Your task to perform on an android device: Search for "acer nitro" on target, select the first entry, and add it to the cart. Image 0: 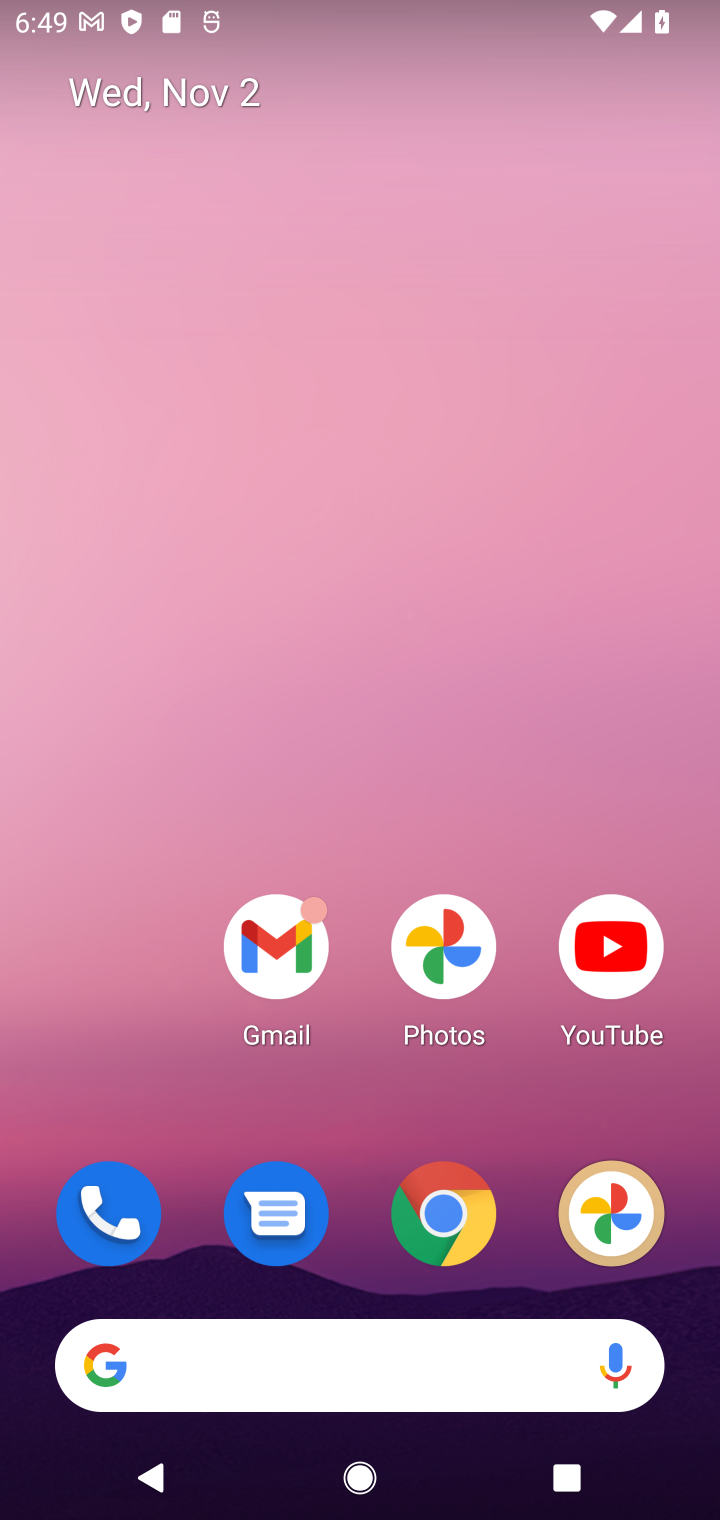
Step 0: click (441, 1220)
Your task to perform on an android device: Search for "acer nitro" on target, select the first entry, and add it to the cart. Image 1: 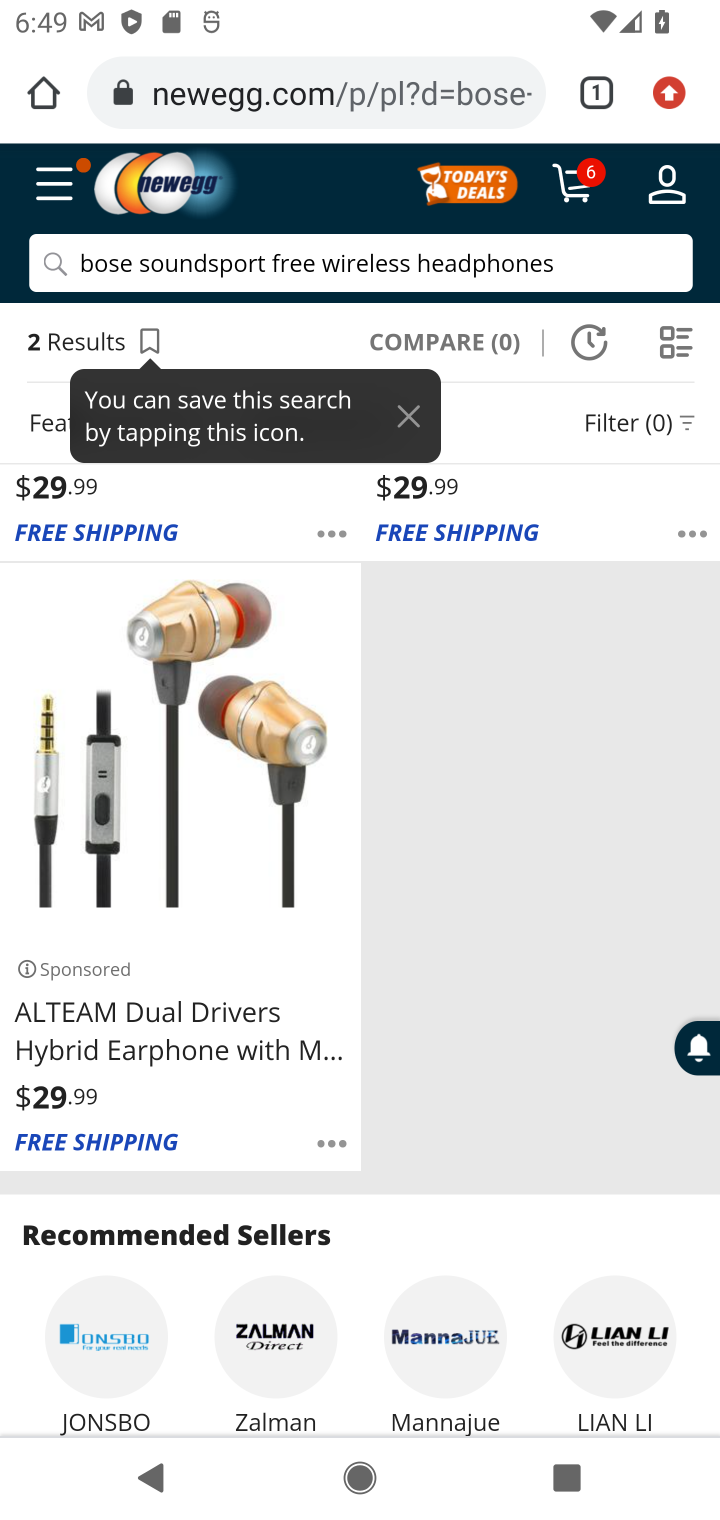
Step 1: click (390, 62)
Your task to perform on an android device: Search for "acer nitro" on target, select the first entry, and add it to the cart. Image 2: 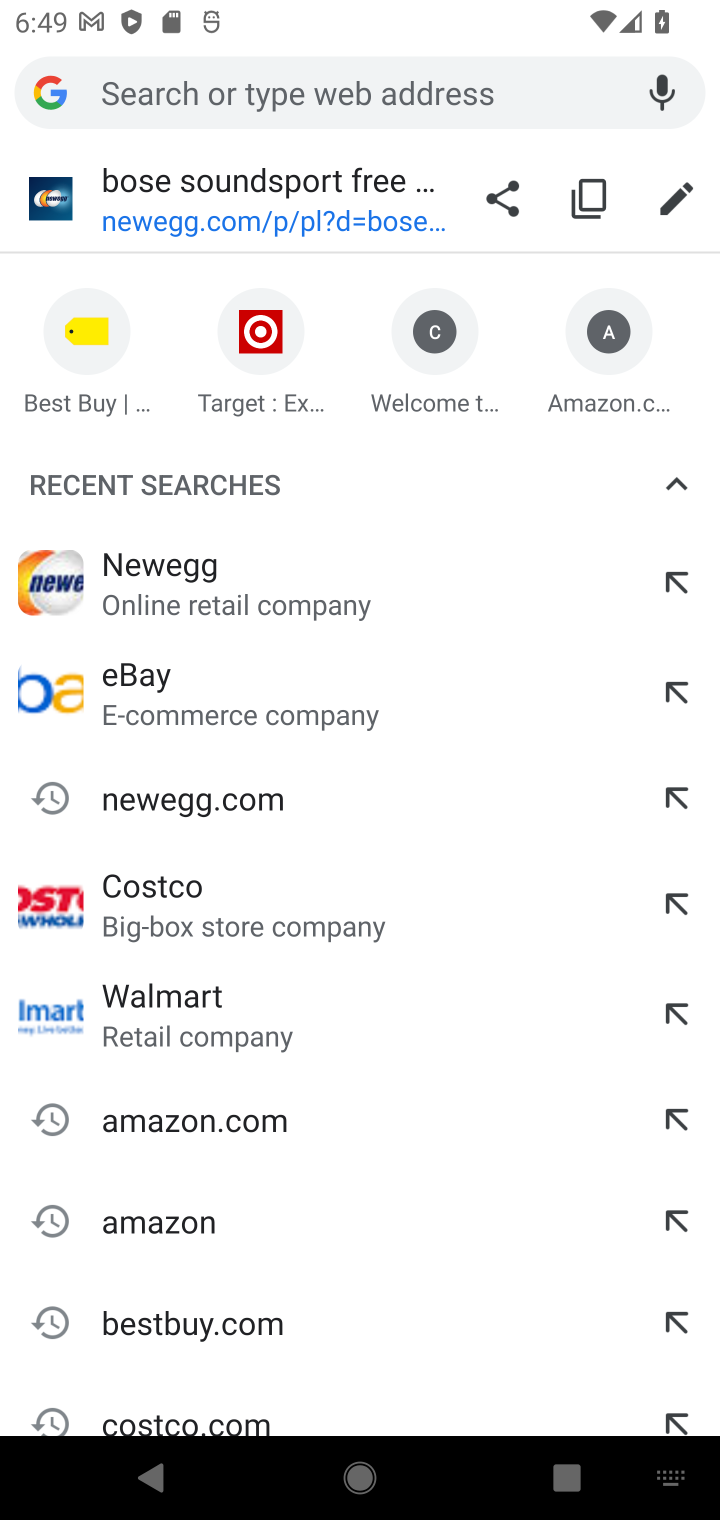
Step 2: type "target.com"
Your task to perform on an android device: Search for "acer nitro" on target, select the first entry, and add it to the cart. Image 3: 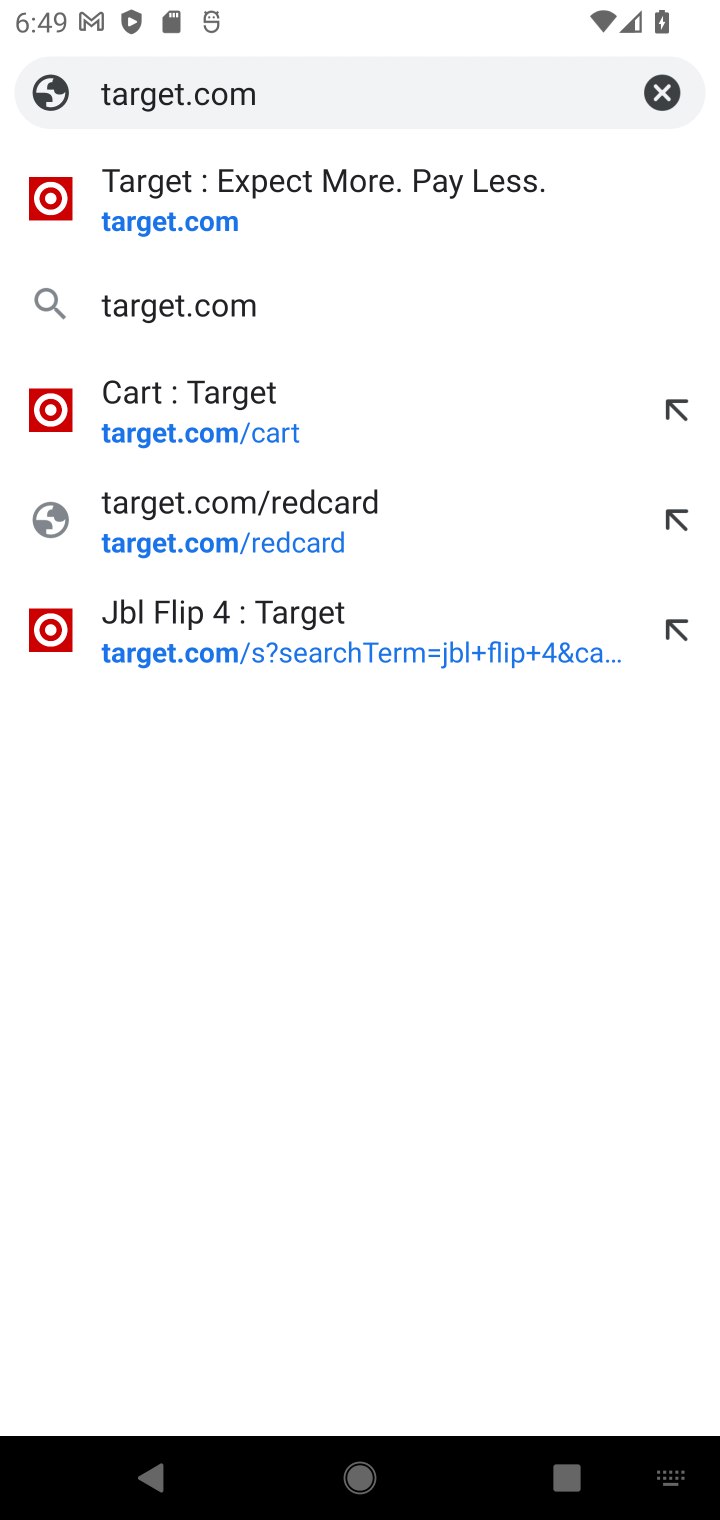
Step 3: click (144, 188)
Your task to perform on an android device: Search for "acer nitro" on target, select the first entry, and add it to the cart. Image 4: 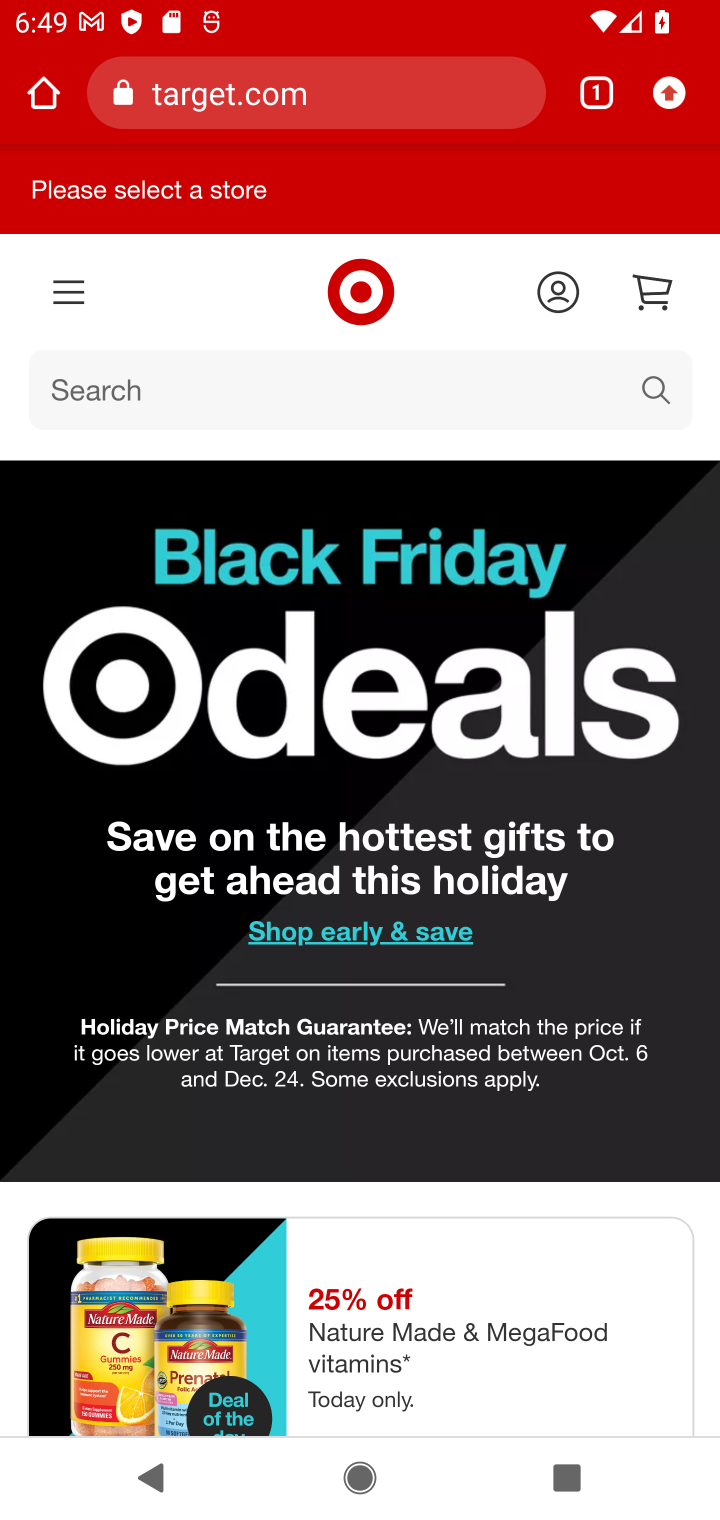
Step 4: click (292, 374)
Your task to perform on an android device: Search for "acer nitro" on target, select the first entry, and add it to the cart. Image 5: 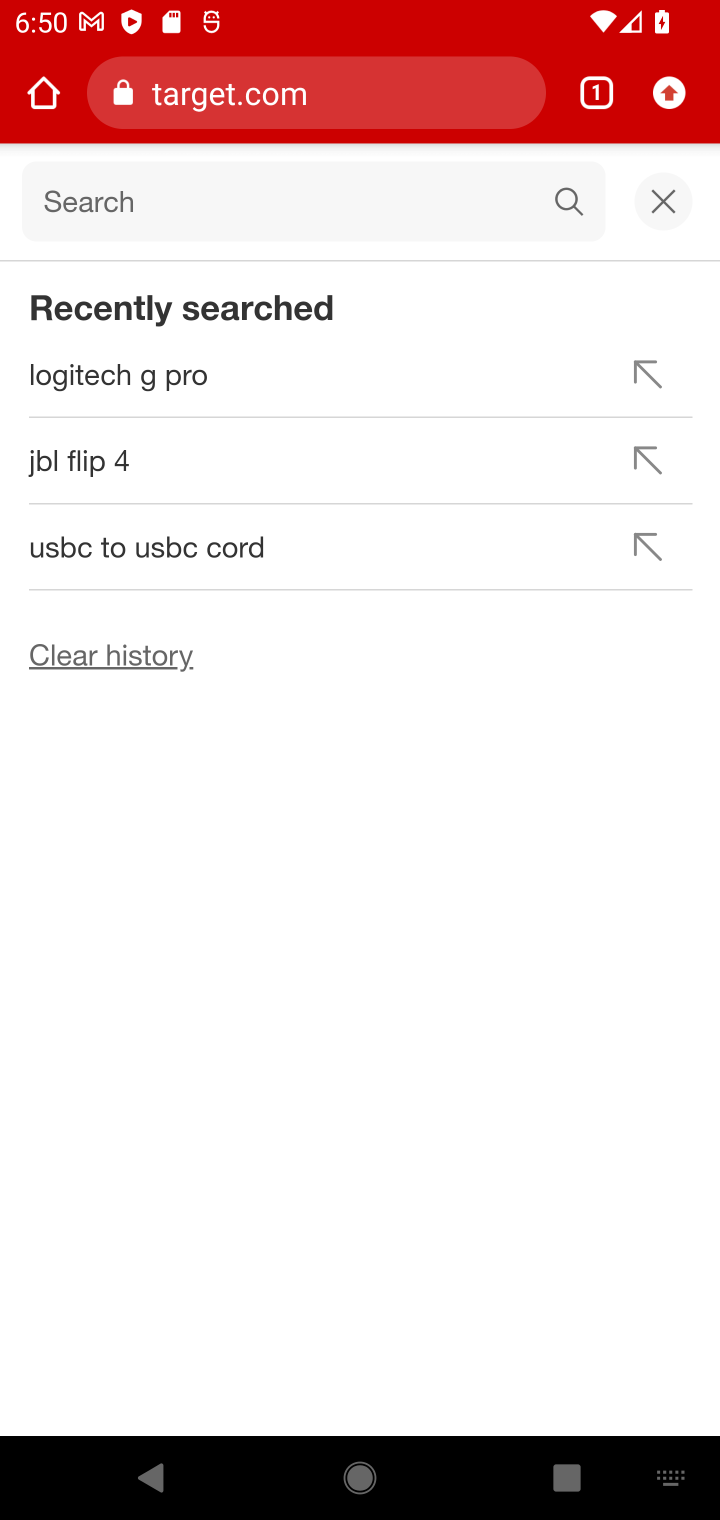
Step 5: type "acer nitro"
Your task to perform on an android device: Search for "acer nitro" on target, select the first entry, and add it to the cart. Image 6: 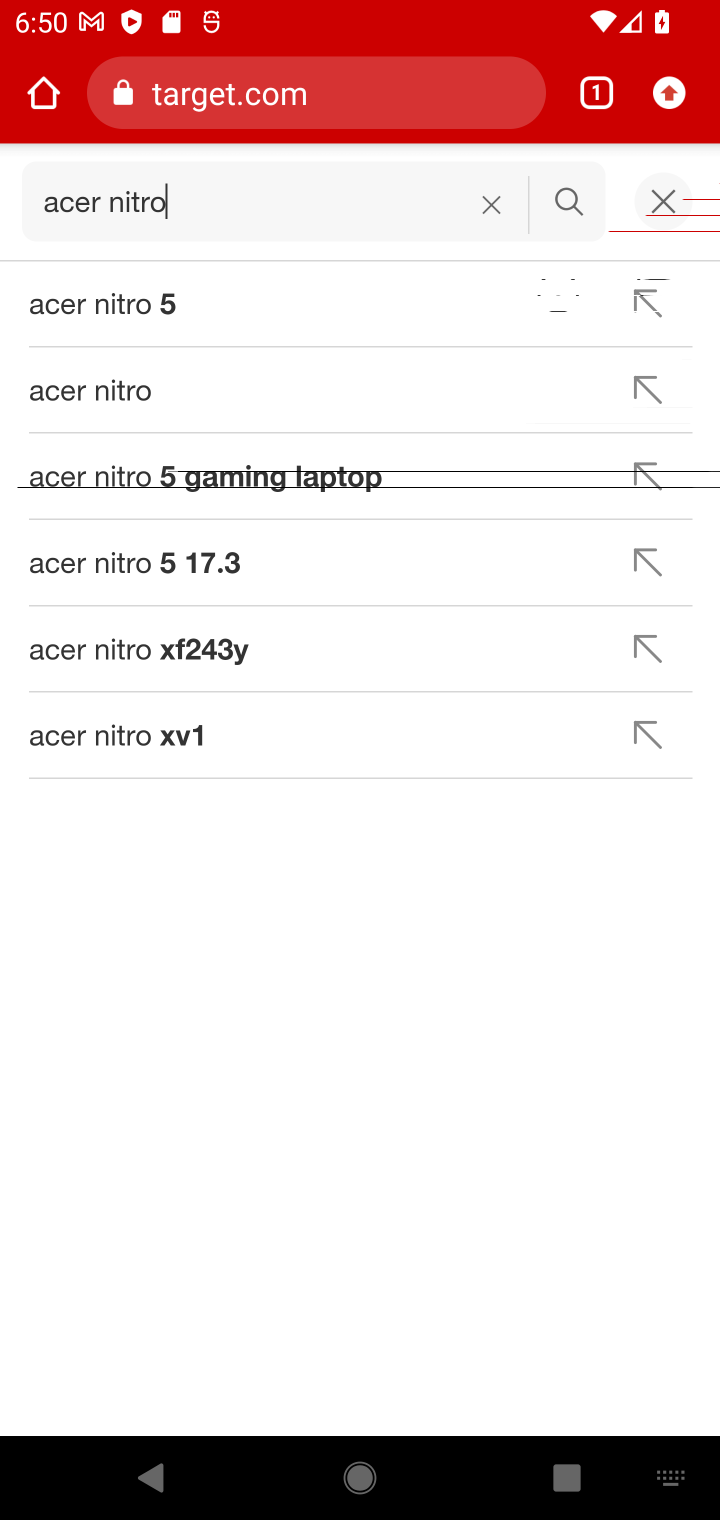
Step 6: click (93, 298)
Your task to perform on an android device: Search for "acer nitro" on target, select the first entry, and add it to the cart. Image 7: 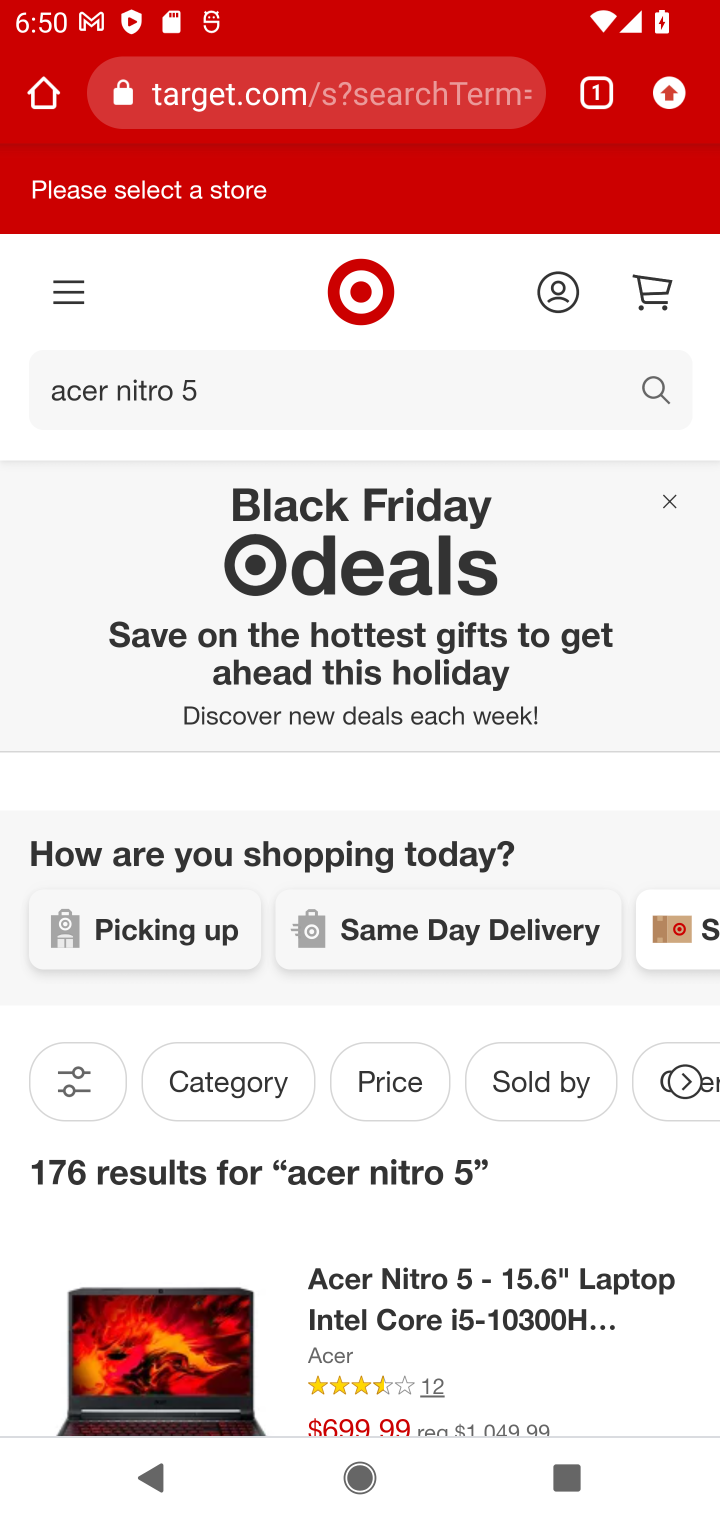
Step 7: drag from (391, 1255) to (365, 633)
Your task to perform on an android device: Search for "acer nitro" on target, select the first entry, and add it to the cart. Image 8: 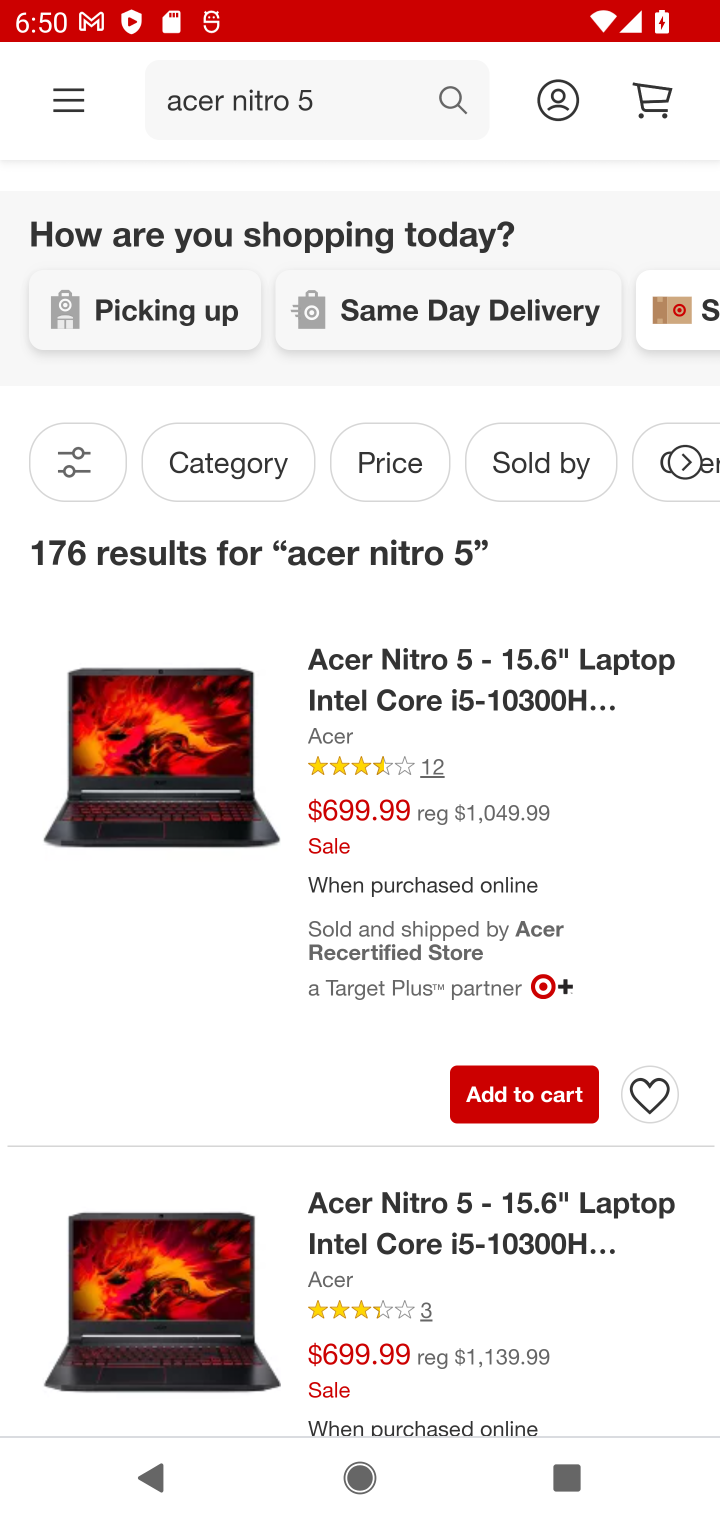
Step 8: click (509, 1090)
Your task to perform on an android device: Search for "acer nitro" on target, select the first entry, and add it to the cart. Image 9: 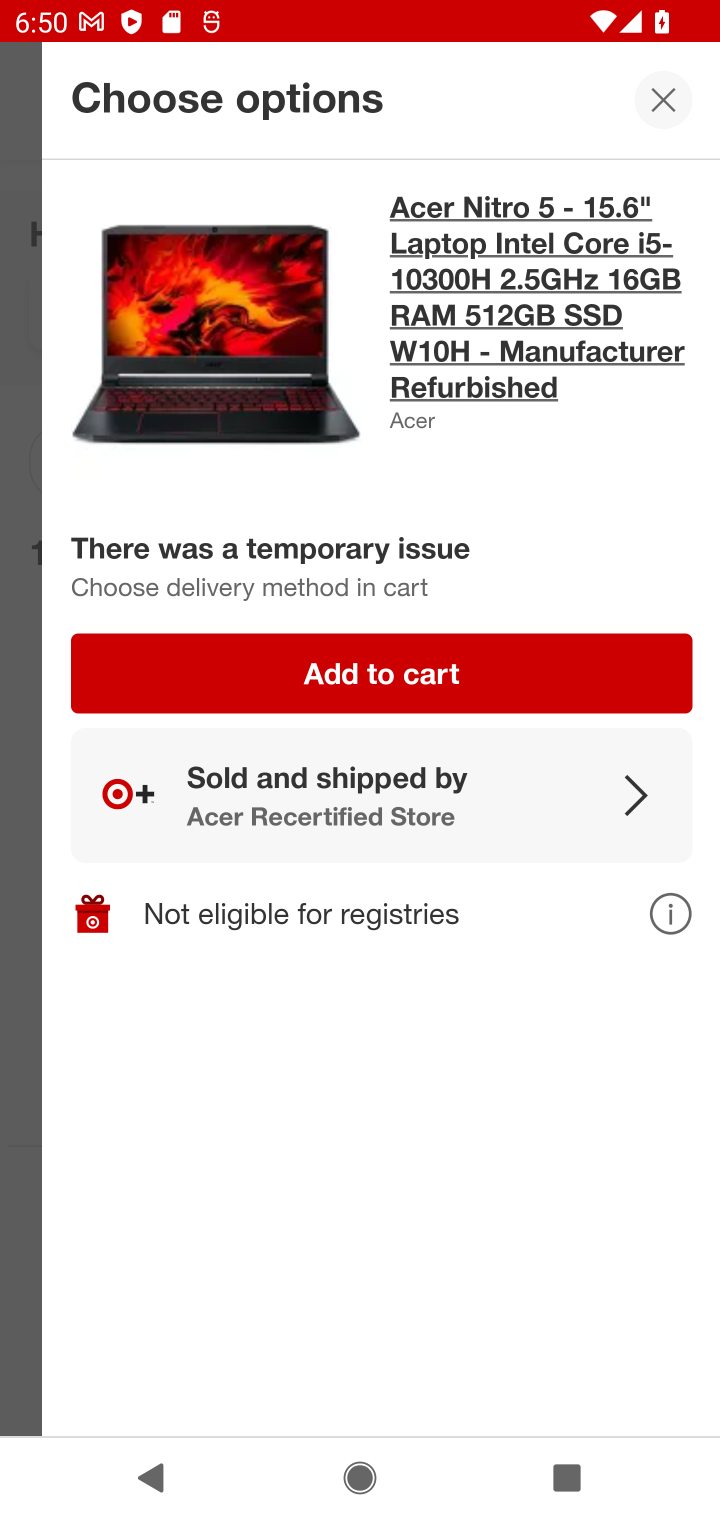
Step 9: click (339, 675)
Your task to perform on an android device: Search for "acer nitro" on target, select the first entry, and add it to the cart. Image 10: 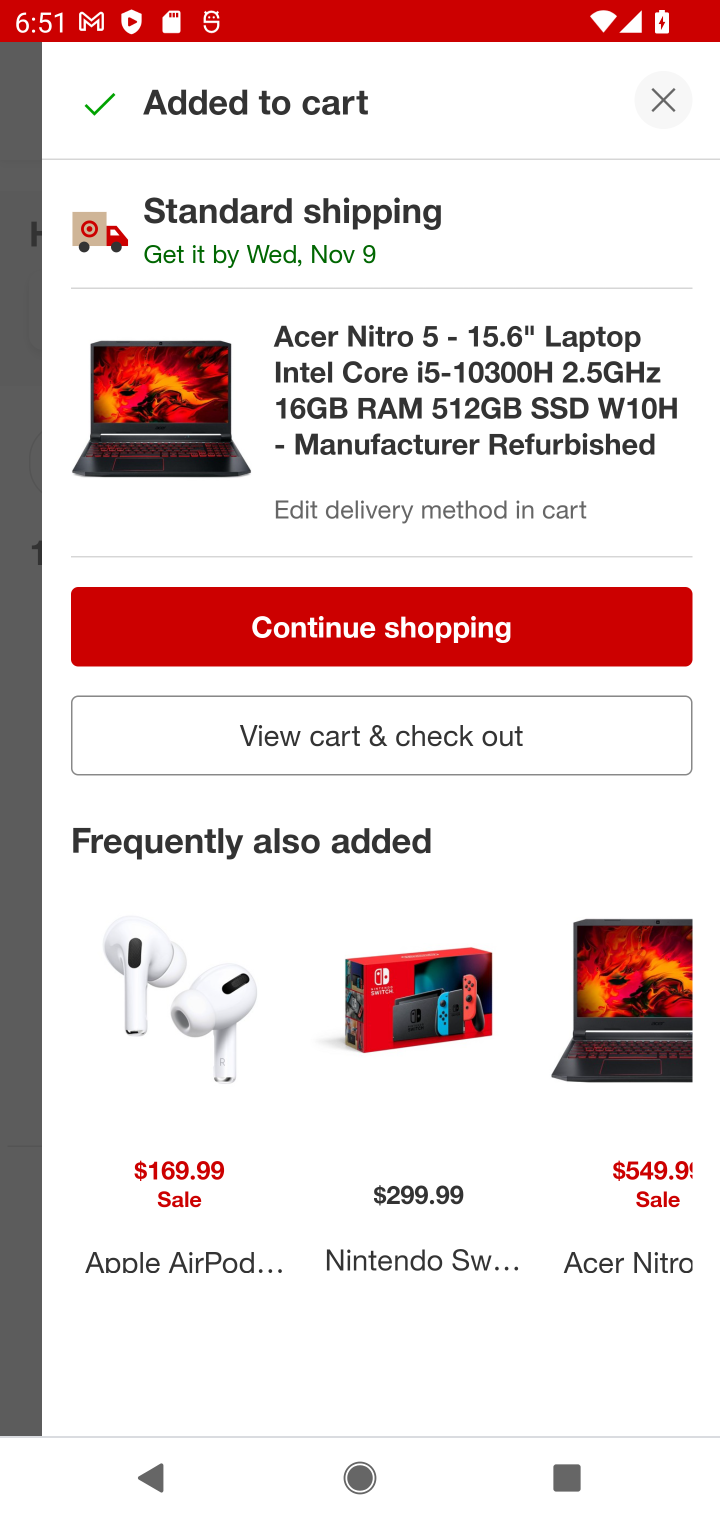
Step 10: click (418, 734)
Your task to perform on an android device: Search for "acer nitro" on target, select the first entry, and add it to the cart. Image 11: 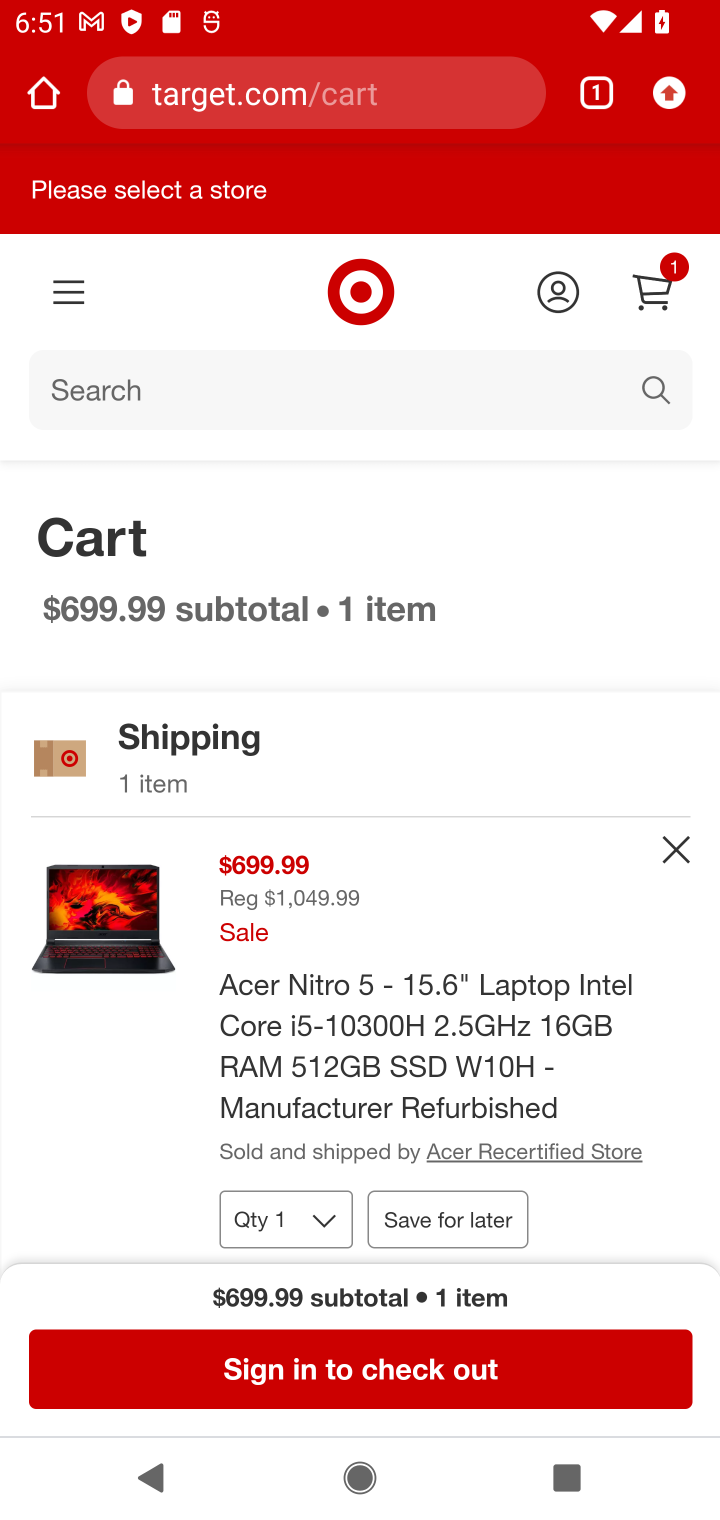
Step 11: task complete